Your task to perform on an android device: turn smart compose on in the gmail app Image 0: 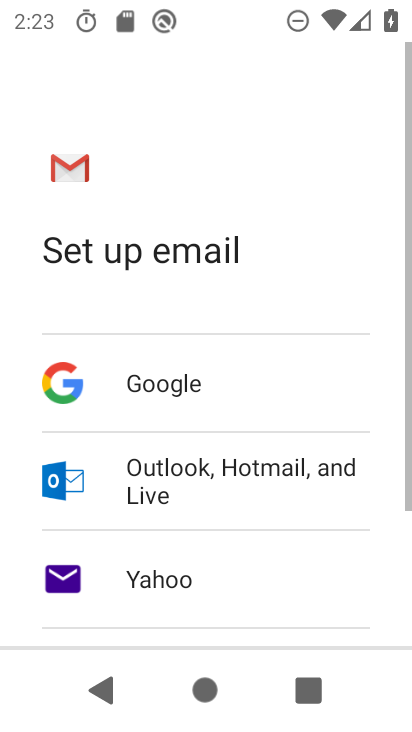
Step 0: press home button
Your task to perform on an android device: turn smart compose on in the gmail app Image 1: 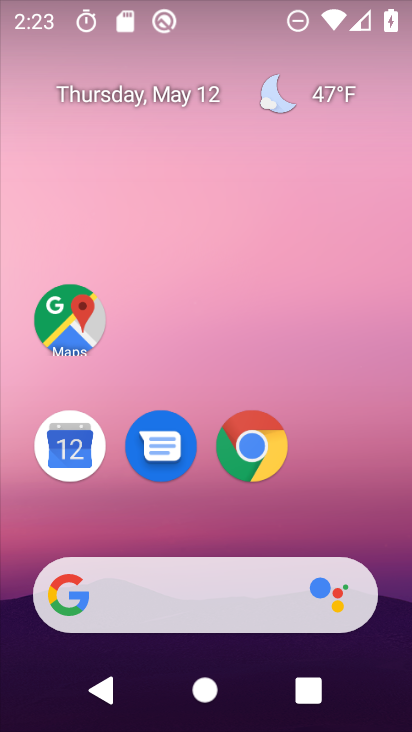
Step 1: drag from (188, 527) to (231, 203)
Your task to perform on an android device: turn smart compose on in the gmail app Image 2: 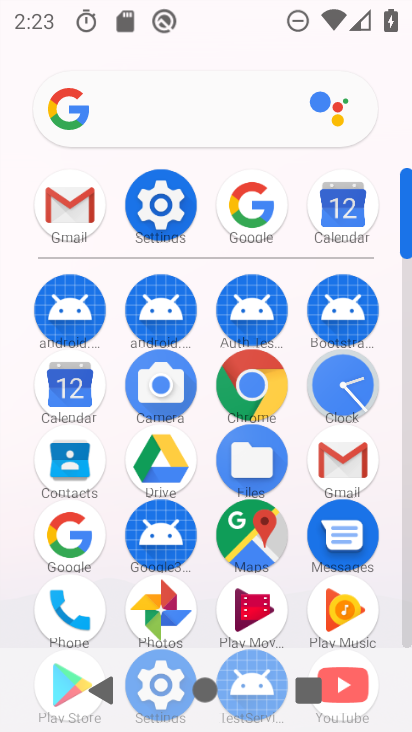
Step 2: click (318, 458)
Your task to perform on an android device: turn smart compose on in the gmail app Image 3: 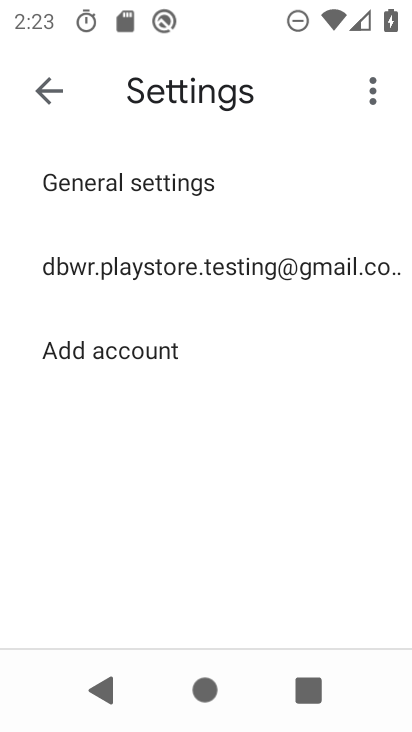
Step 3: click (51, 96)
Your task to perform on an android device: turn smart compose on in the gmail app Image 4: 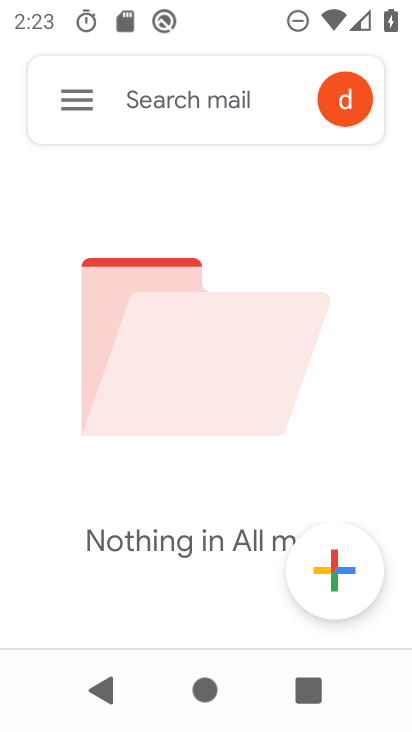
Step 4: click (58, 111)
Your task to perform on an android device: turn smart compose on in the gmail app Image 5: 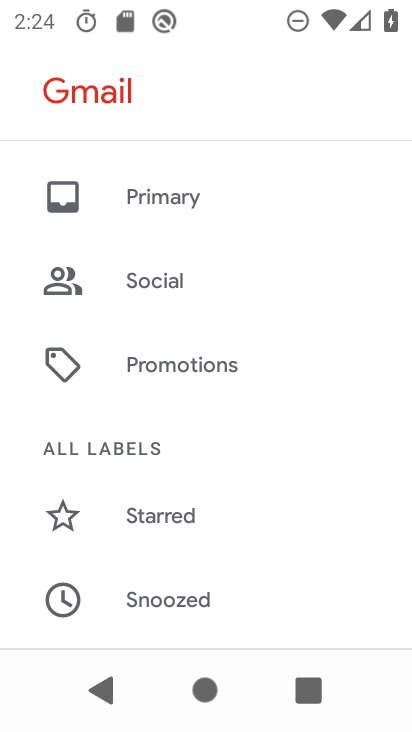
Step 5: drag from (208, 552) to (281, 211)
Your task to perform on an android device: turn smart compose on in the gmail app Image 6: 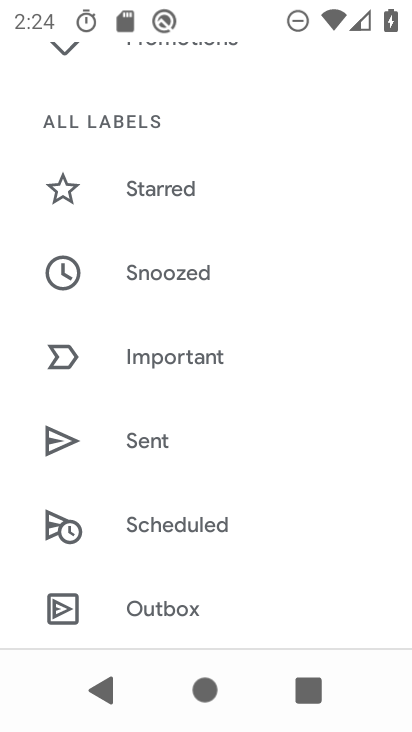
Step 6: drag from (183, 543) to (247, 280)
Your task to perform on an android device: turn smart compose on in the gmail app Image 7: 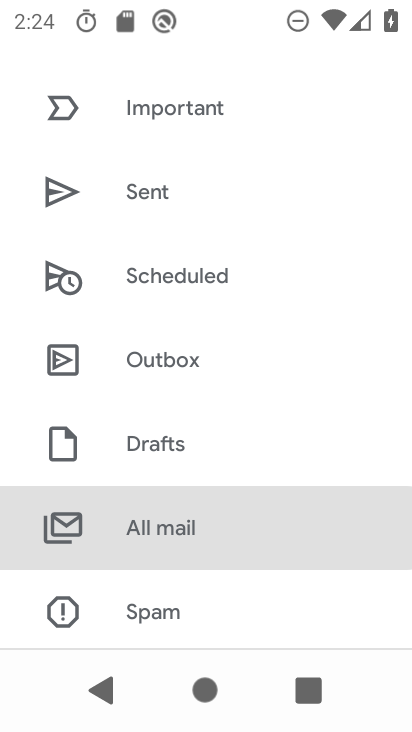
Step 7: drag from (219, 555) to (265, 293)
Your task to perform on an android device: turn smart compose on in the gmail app Image 8: 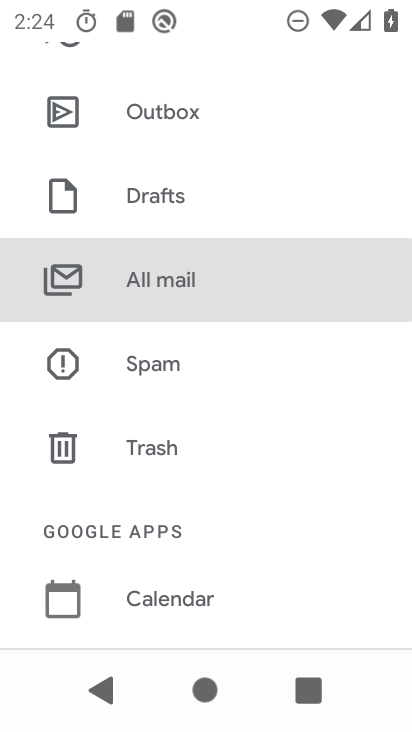
Step 8: drag from (235, 569) to (230, 332)
Your task to perform on an android device: turn smart compose on in the gmail app Image 9: 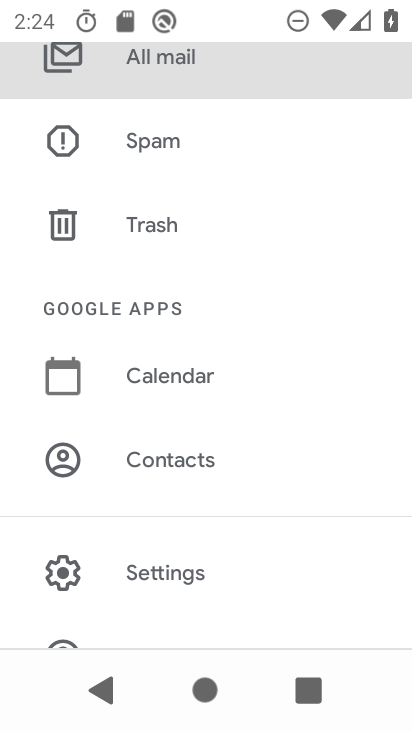
Step 9: click (169, 560)
Your task to perform on an android device: turn smart compose on in the gmail app Image 10: 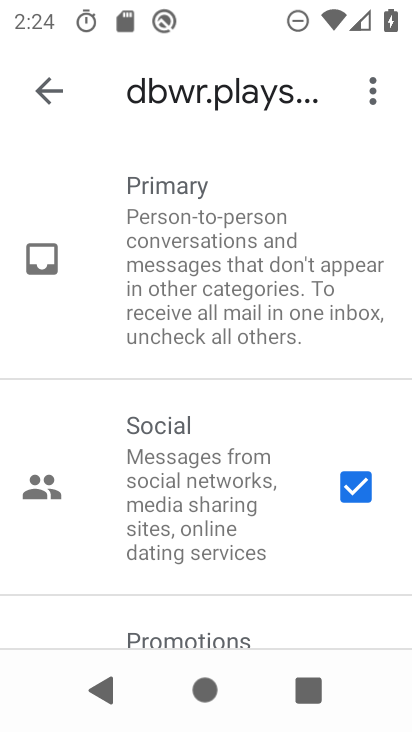
Step 10: drag from (230, 536) to (214, 169)
Your task to perform on an android device: turn smart compose on in the gmail app Image 11: 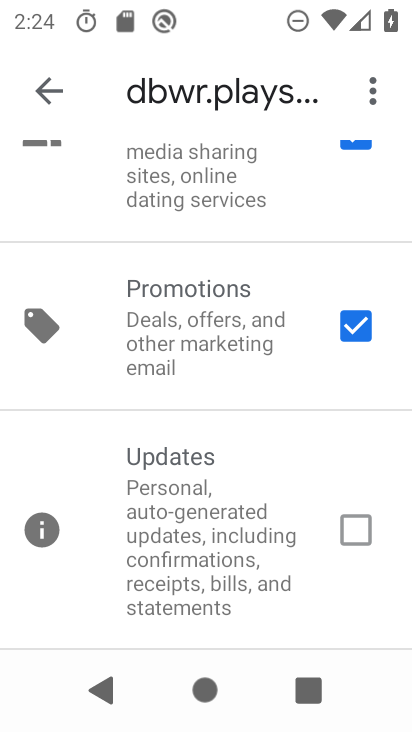
Step 11: drag from (237, 339) to (250, 233)
Your task to perform on an android device: turn smart compose on in the gmail app Image 12: 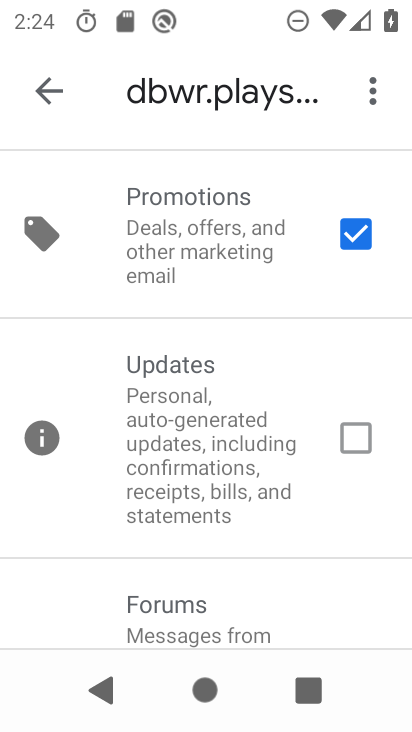
Step 12: drag from (264, 575) to (288, 307)
Your task to perform on an android device: turn smart compose on in the gmail app Image 13: 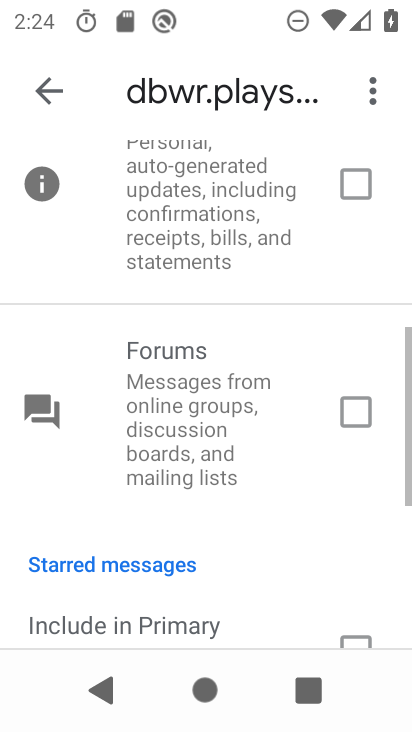
Step 13: drag from (285, 544) to (319, 307)
Your task to perform on an android device: turn smart compose on in the gmail app Image 14: 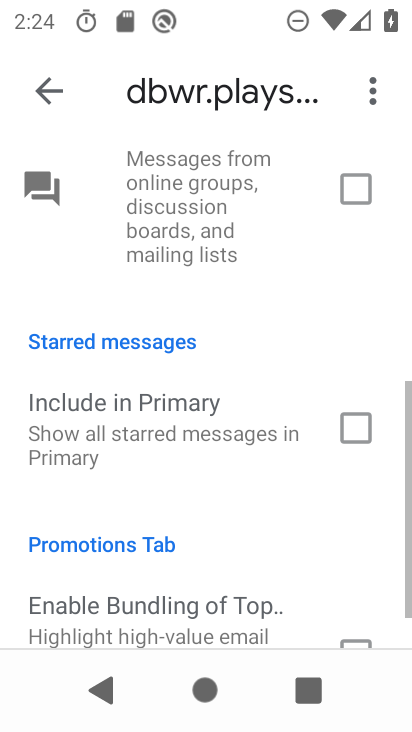
Step 14: drag from (322, 550) to (339, 294)
Your task to perform on an android device: turn smart compose on in the gmail app Image 15: 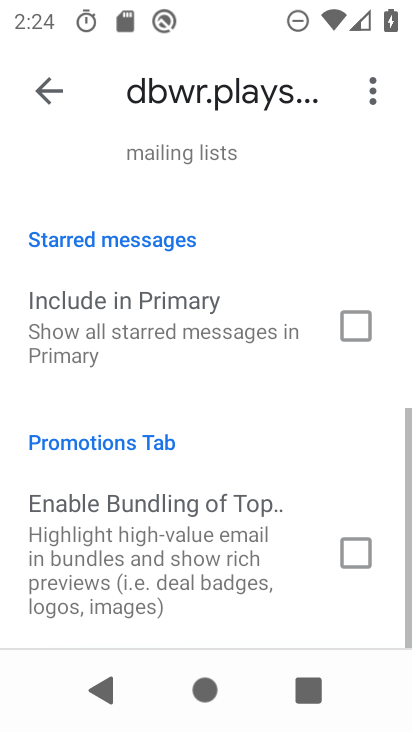
Step 15: drag from (285, 576) to (282, 345)
Your task to perform on an android device: turn smart compose on in the gmail app Image 16: 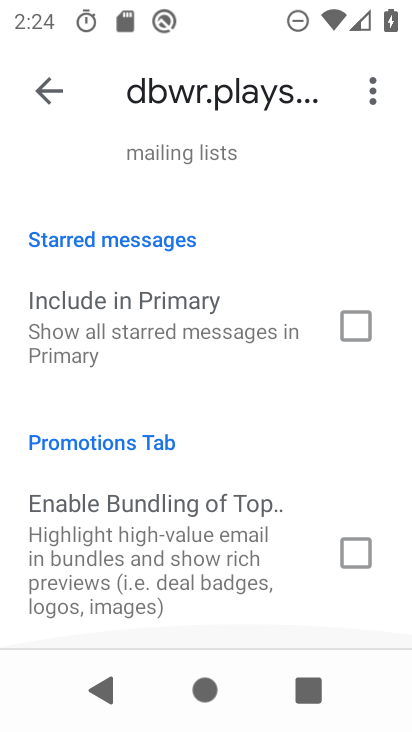
Step 16: drag from (271, 532) to (288, 256)
Your task to perform on an android device: turn smart compose on in the gmail app Image 17: 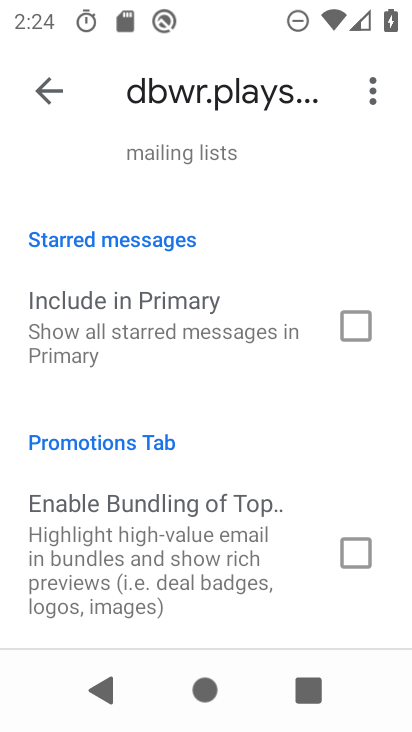
Step 17: drag from (287, 267) to (287, 498)
Your task to perform on an android device: turn smart compose on in the gmail app Image 18: 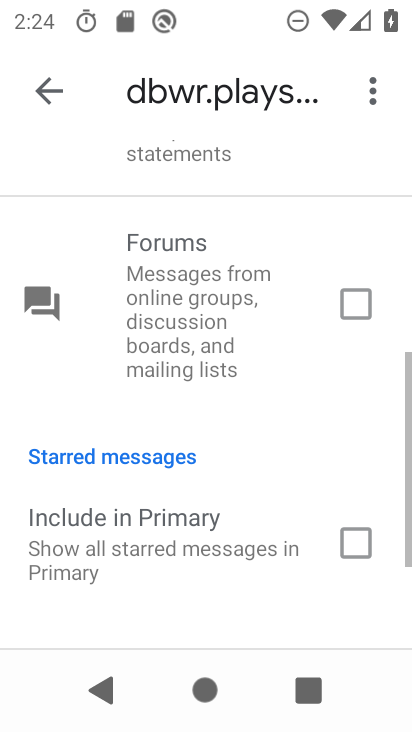
Step 18: drag from (261, 239) to (261, 414)
Your task to perform on an android device: turn smart compose on in the gmail app Image 19: 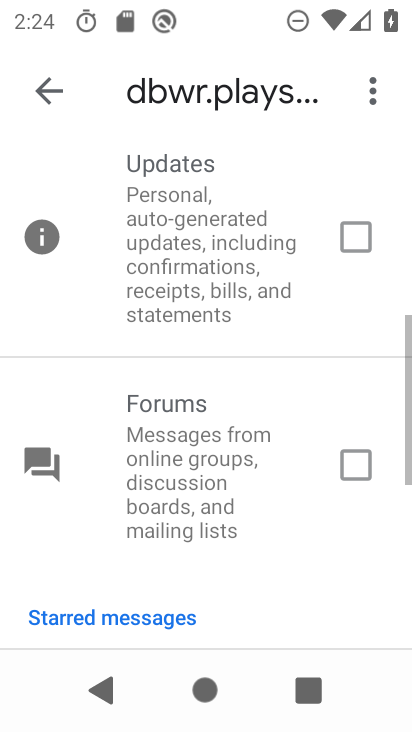
Step 19: drag from (253, 217) to (253, 374)
Your task to perform on an android device: turn smart compose on in the gmail app Image 20: 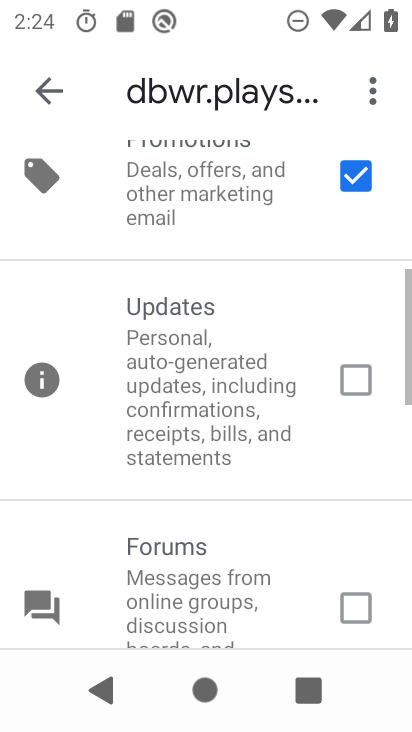
Step 20: drag from (256, 225) to (256, 386)
Your task to perform on an android device: turn smart compose on in the gmail app Image 21: 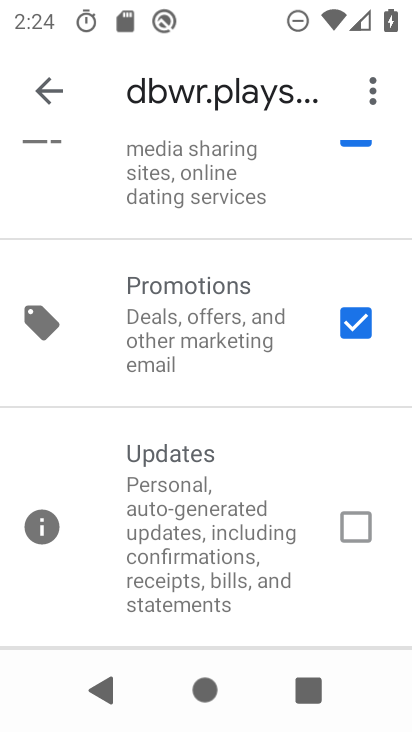
Step 21: drag from (251, 244) to (261, 484)
Your task to perform on an android device: turn smart compose on in the gmail app Image 22: 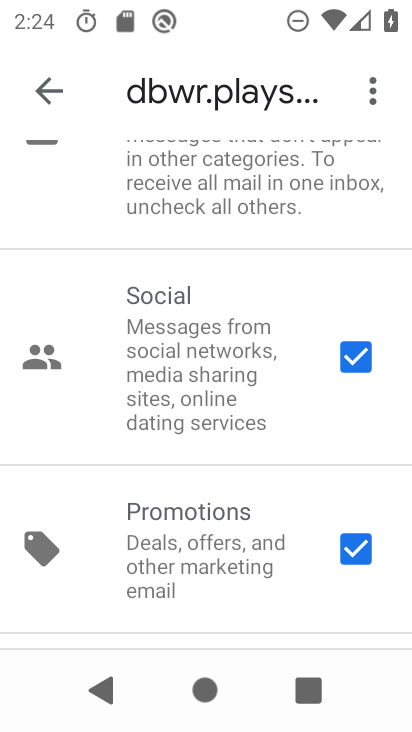
Step 22: click (40, 74)
Your task to perform on an android device: turn smart compose on in the gmail app Image 23: 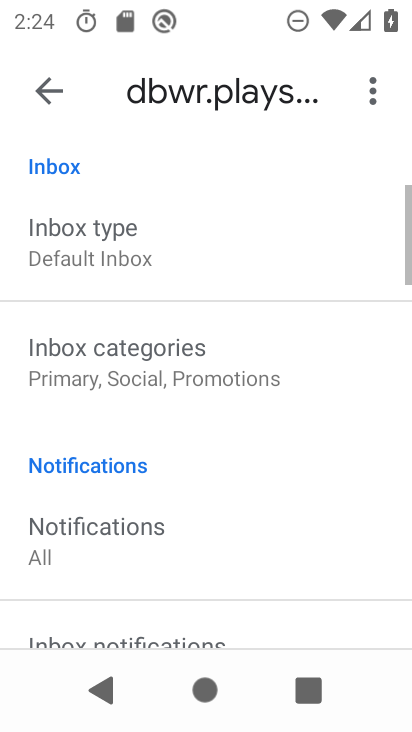
Step 23: task complete